Your task to perform on an android device: Go to Reddit.com Image 0: 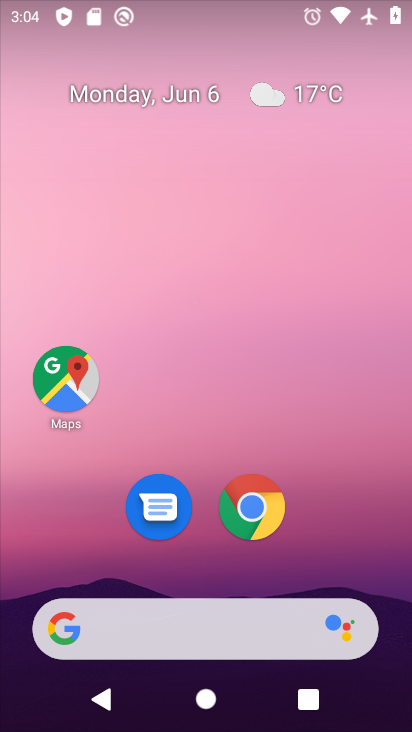
Step 0: click (260, 625)
Your task to perform on an android device: Go to Reddit.com Image 1: 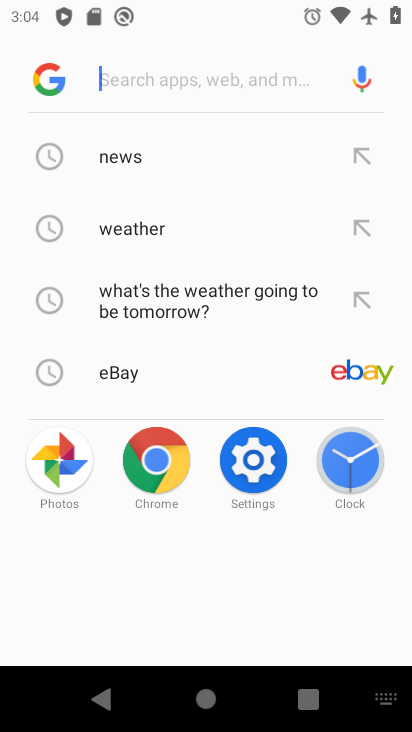
Step 1: click (150, 80)
Your task to perform on an android device: Go to Reddit.com Image 2: 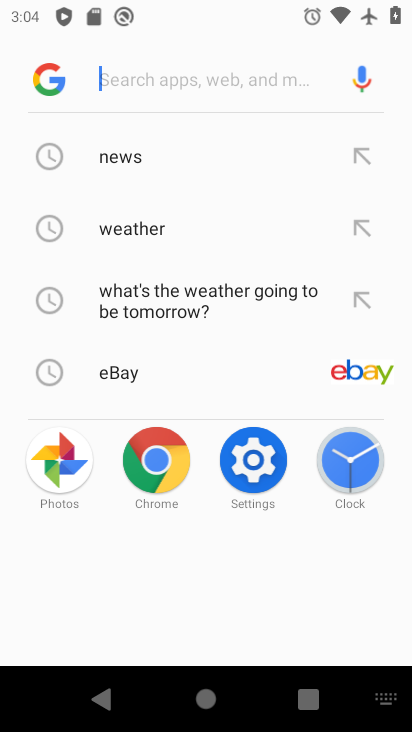
Step 2: type "Reddit.com"
Your task to perform on an android device: Go to Reddit.com Image 3: 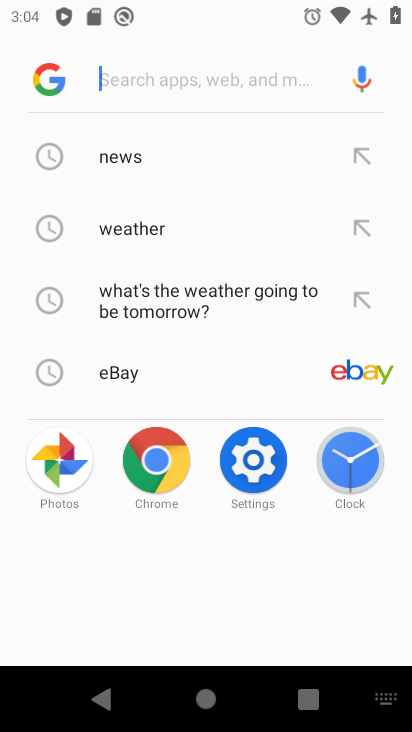
Step 3: click (151, 80)
Your task to perform on an android device: Go to Reddit.com Image 4: 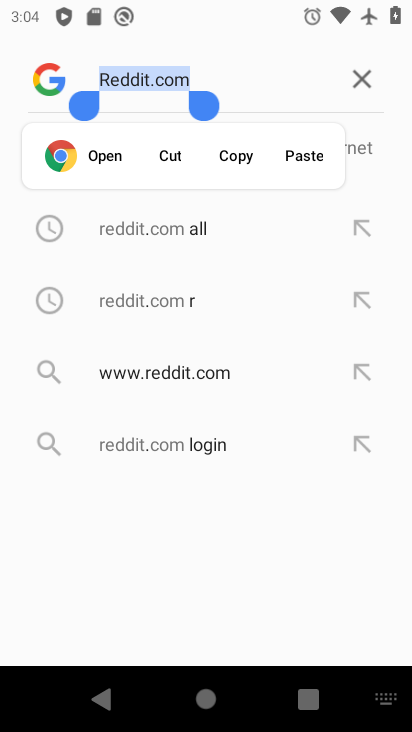
Step 4: click (161, 368)
Your task to perform on an android device: Go to Reddit.com Image 5: 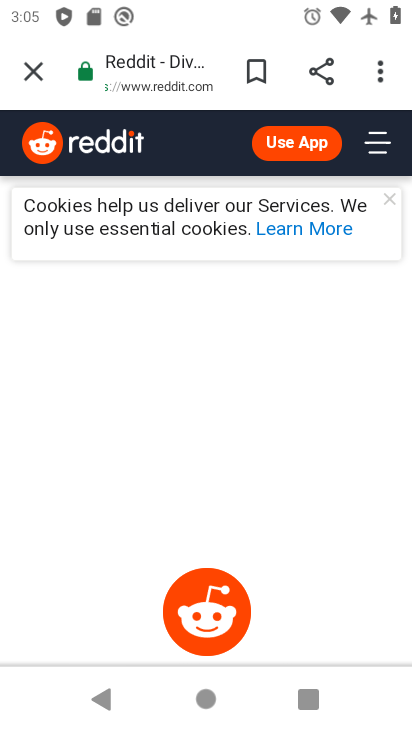
Step 5: task complete